Your task to perform on an android device: see sites visited before in the chrome app Image 0: 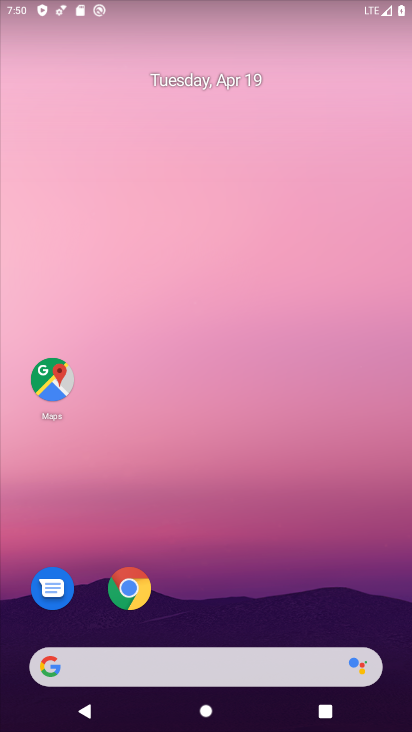
Step 0: drag from (229, 584) to (265, 146)
Your task to perform on an android device: see sites visited before in the chrome app Image 1: 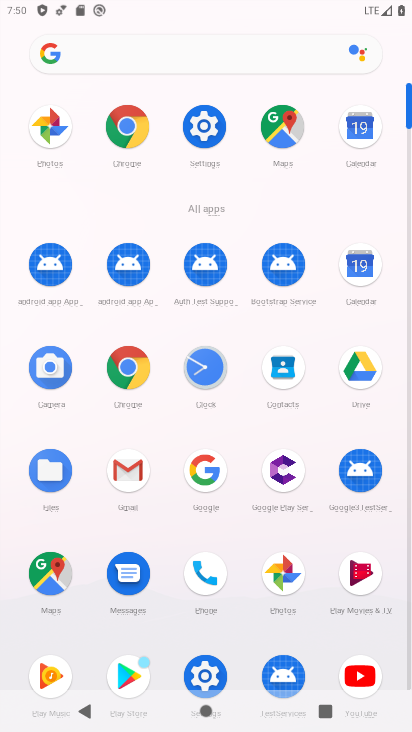
Step 1: click (122, 363)
Your task to perform on an android device: see sites visited before in the chrome app Image 2: 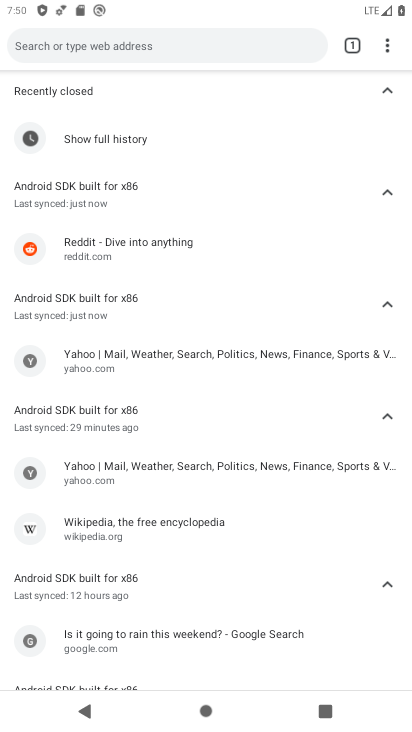
Step 2: click (384, 43)
Your task to perform on an android device: see sites visited before in the chrome app Image 3: 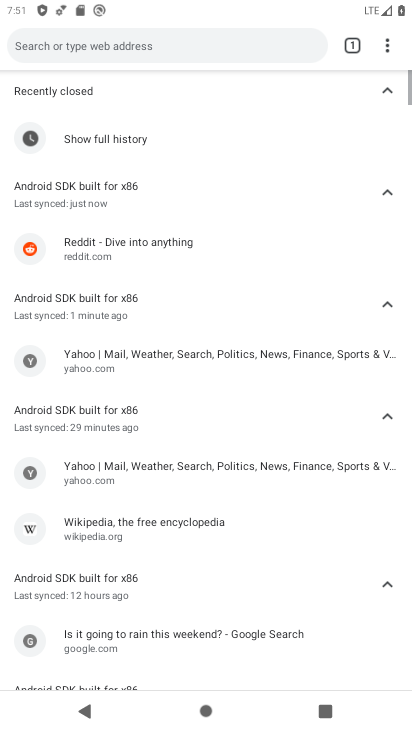
Step 3: click (385, 45)
Your task to perform on an android device: see sites visited before in the chrome app Image 4: 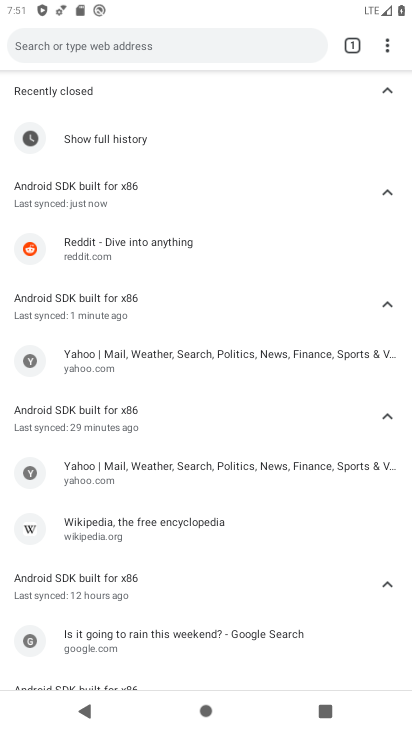
Step 4: click (386, 41)
Your task to perform on an android device: see sites visited before in the chrome app Image 5: 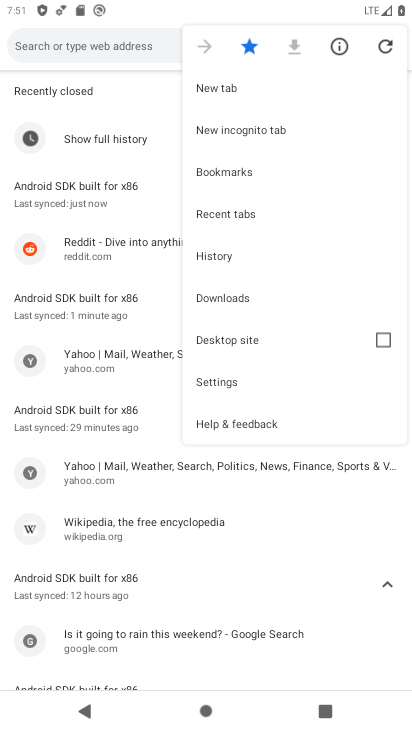
Step 5: click (234, 259)
Your task to perform on an android device: see sites visited before in the chrome app Image 6: 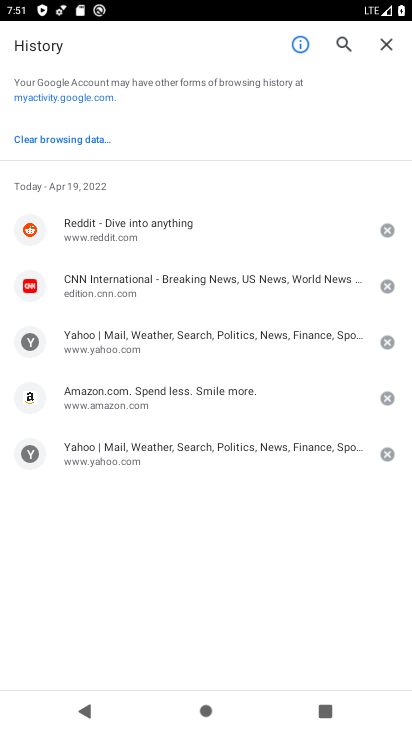
Step 6: task complete